Your task to perform on an android device: Empty the shopping cart on bestbuy. Image 0: 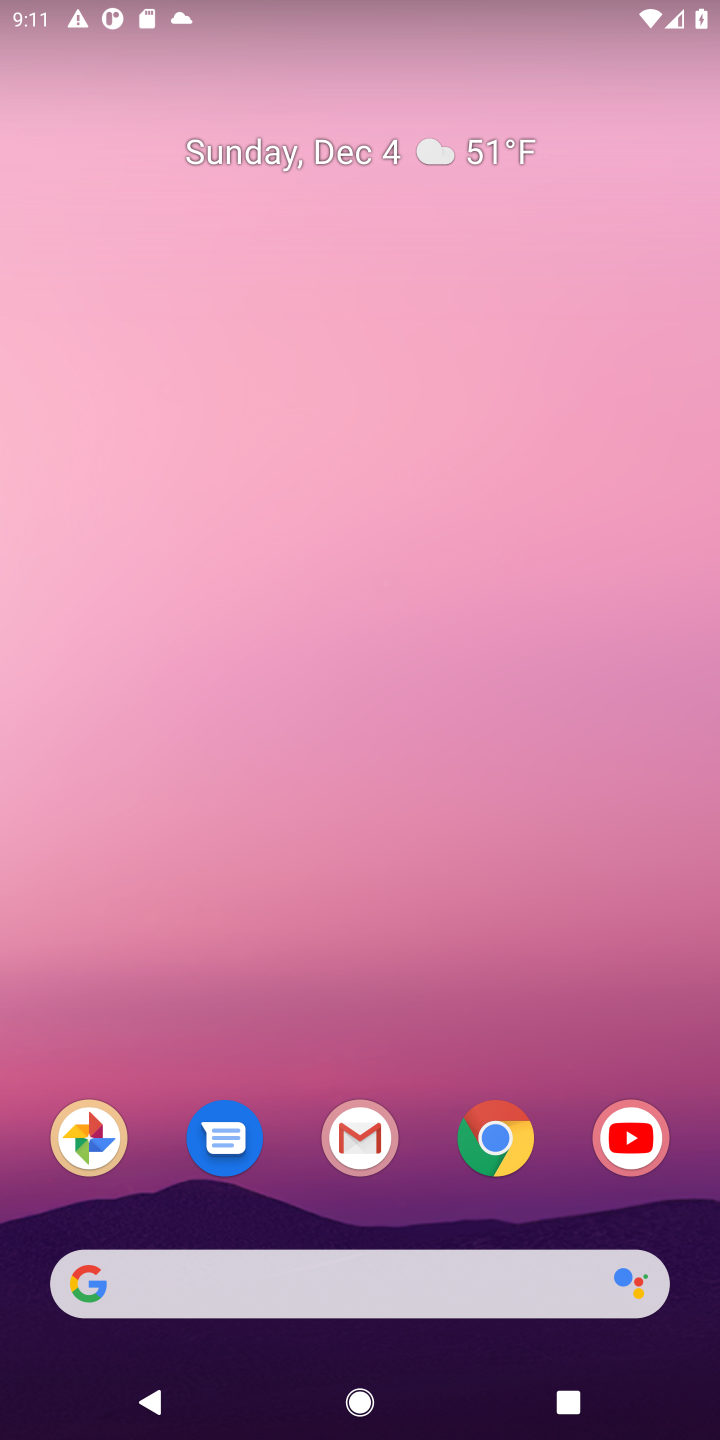
Step 0: click (484, 1136)
Your task to perform on an android device: Empty the shopping cart on bestbuy. Image 1: 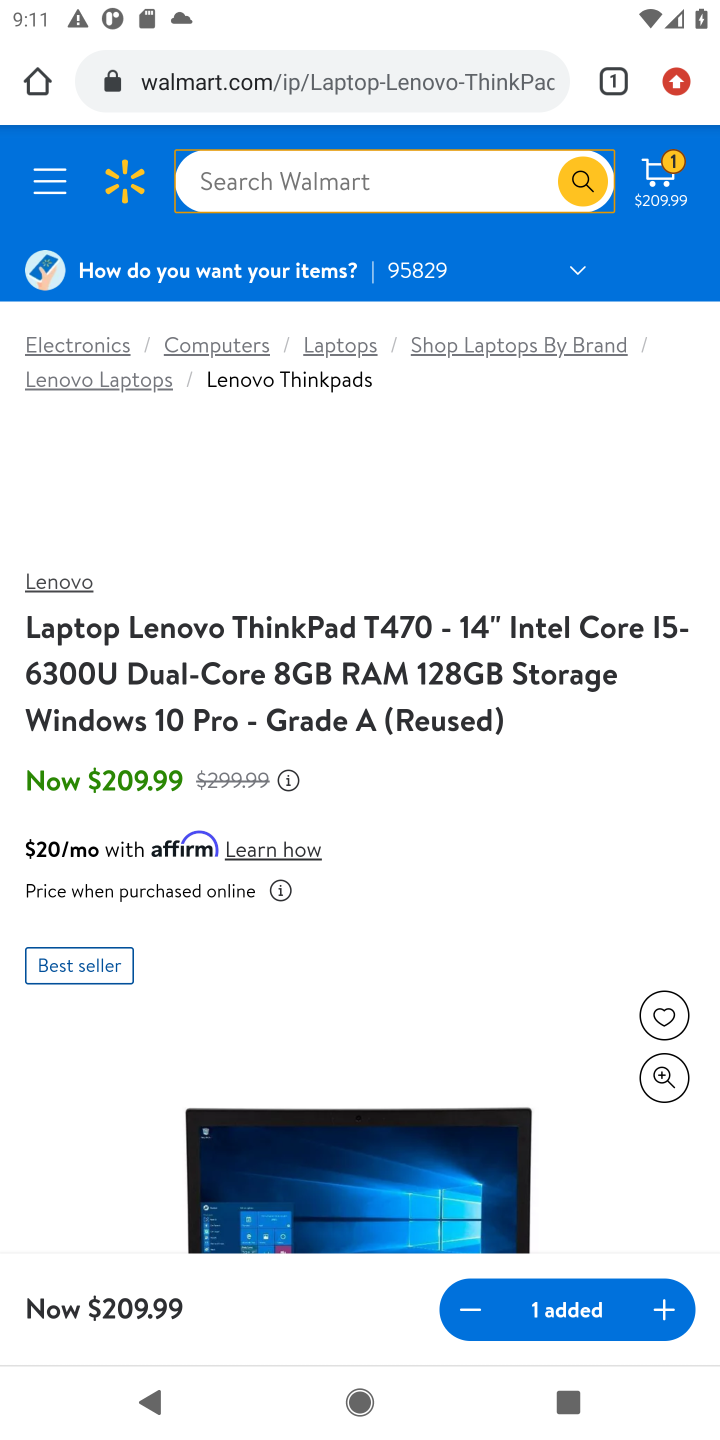
Step 1: click (347, 84)
Your task to perform on an android device: Empty the shopping cart on bestbuy. Image 2: 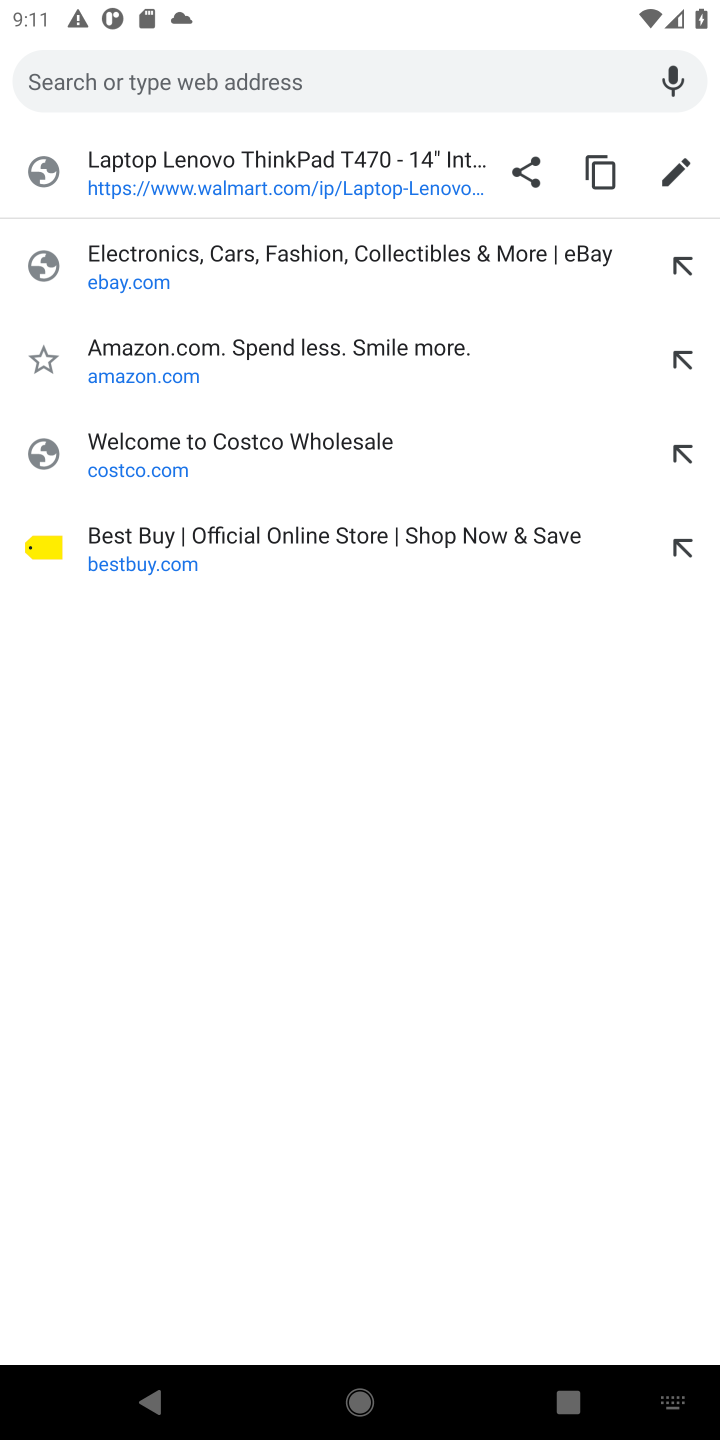
Step 2: click (244, 533)
Your task to perform on an android device: Empty the shopping cart on bestbuy. Image 3: 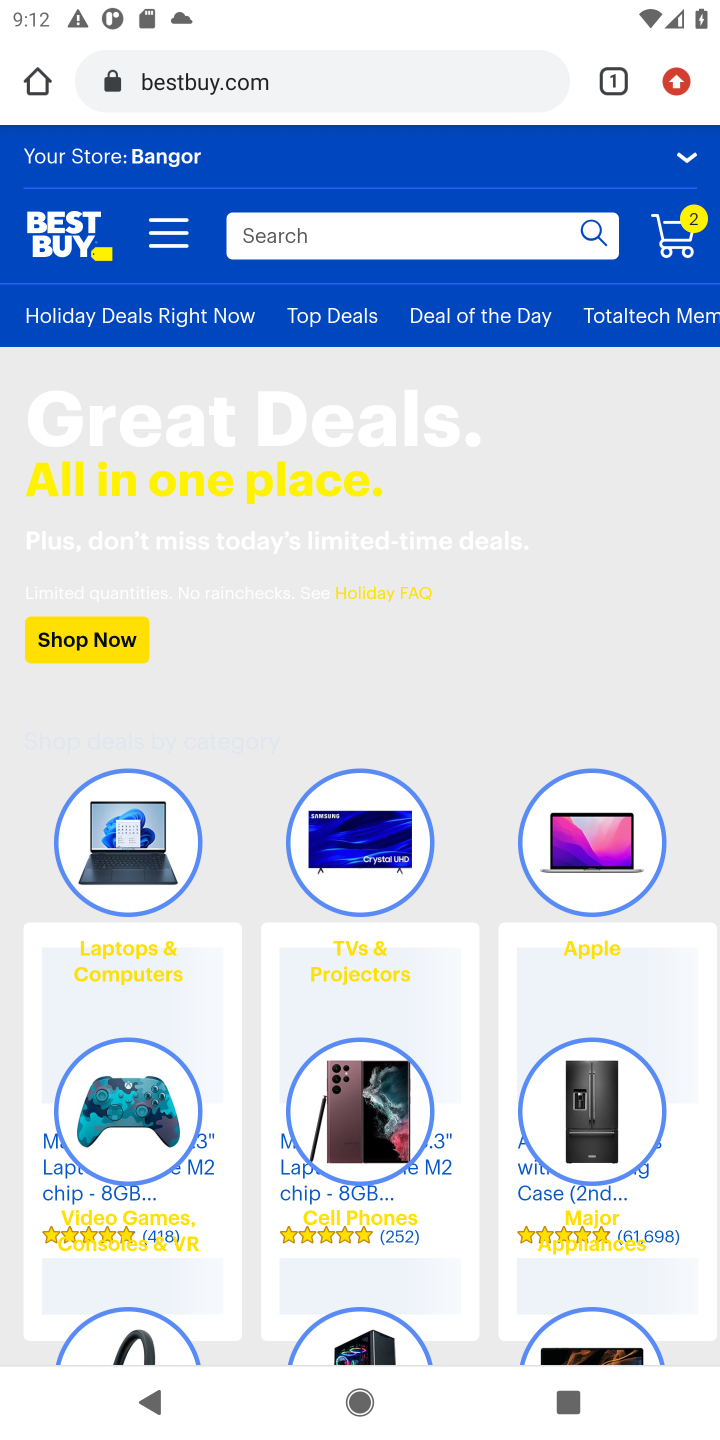
Step 3: click (673, 228)
Your task to perform on an android device: Empty the shopping cart on bestbuy. Image 4: 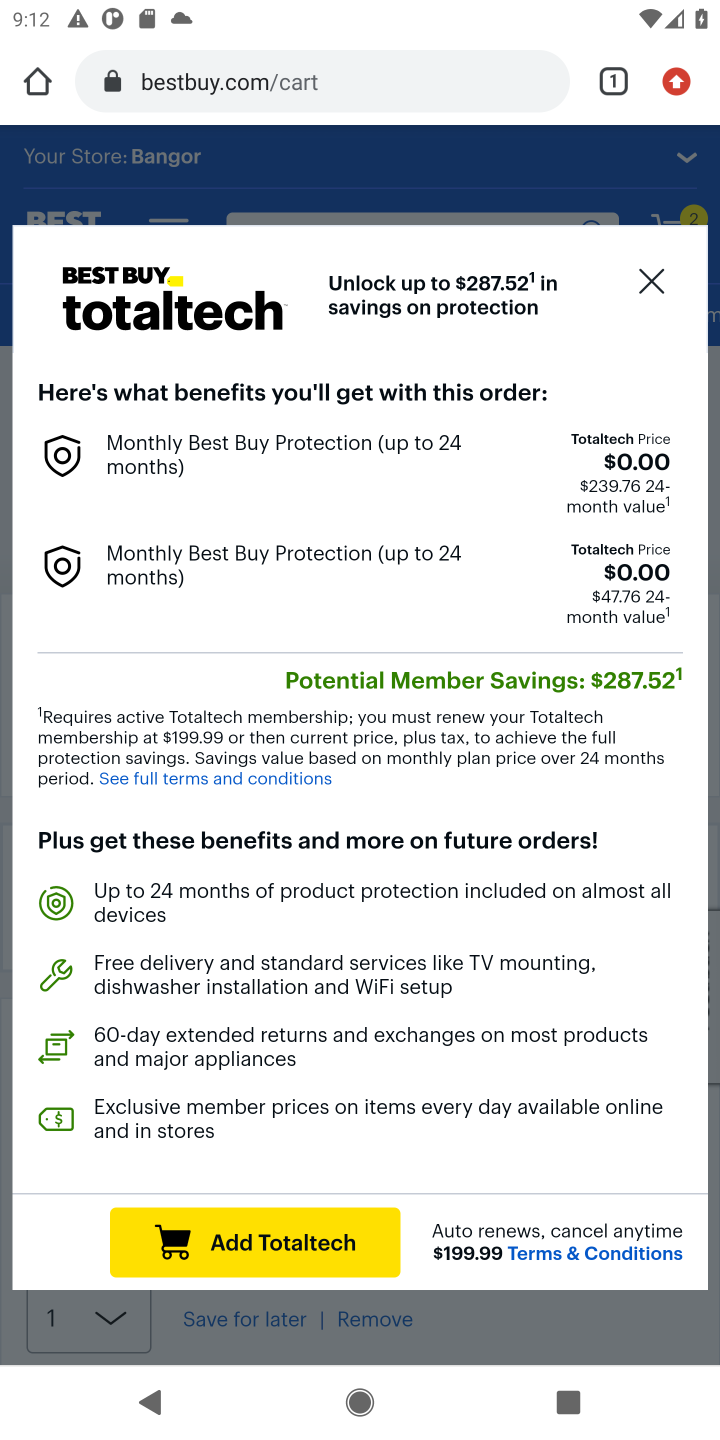
Step 4: click (649, 278)
Your task to perform on an android device: Empty the shopping cart on bestbuy. Image 5: 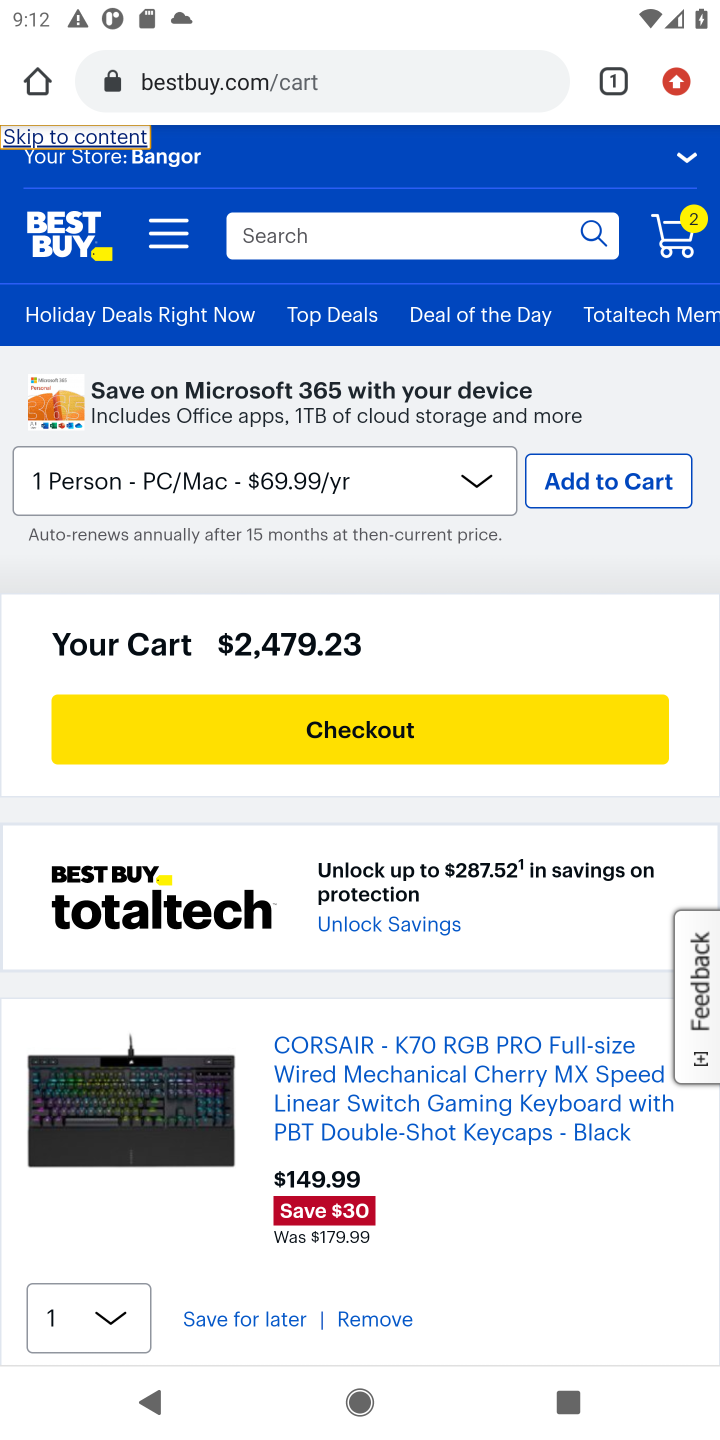
Step 5: drag from (501, 964) to (525, 441)
Your task to perform on an android device: Empty the shopping cart on bestbuy. Image 6: 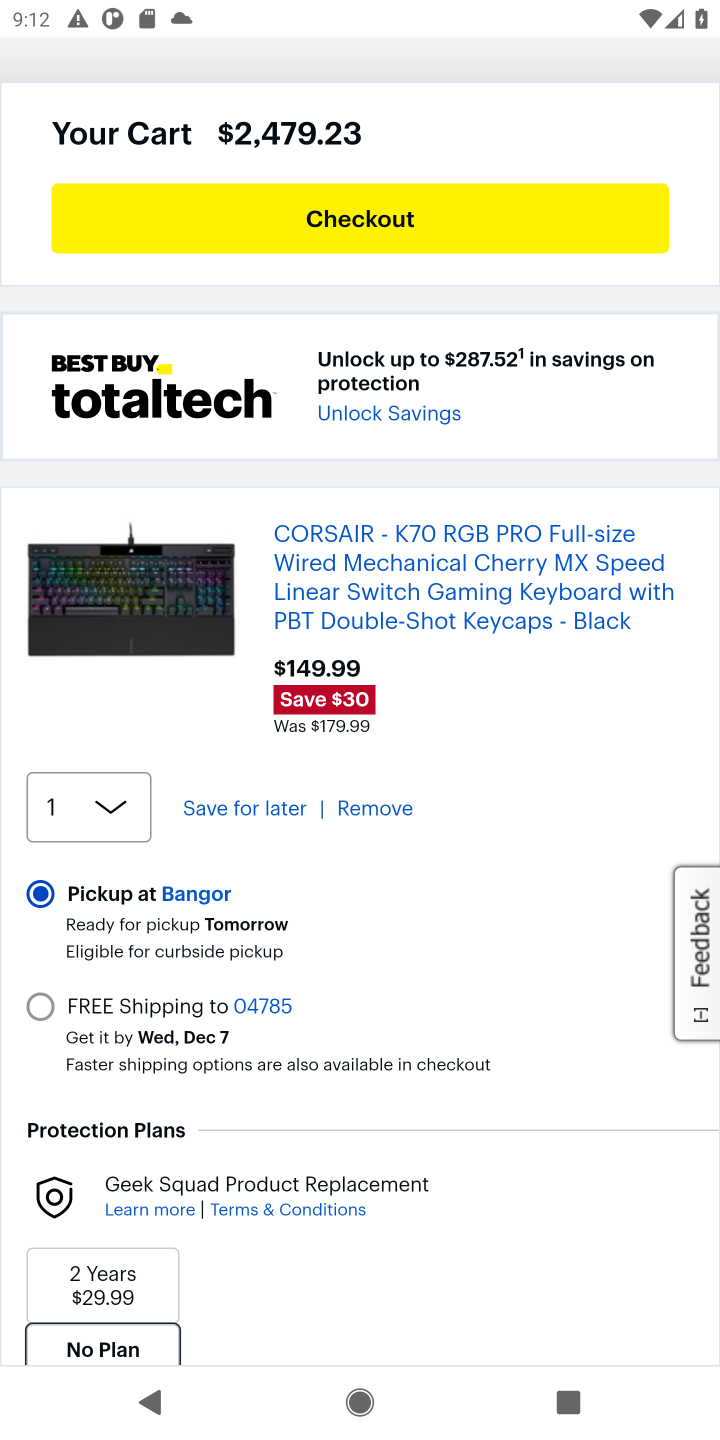
Step 6: click (371, 810)
Your task to perform on an android device: Empty the shopping cart on bestbuy. Image 7: 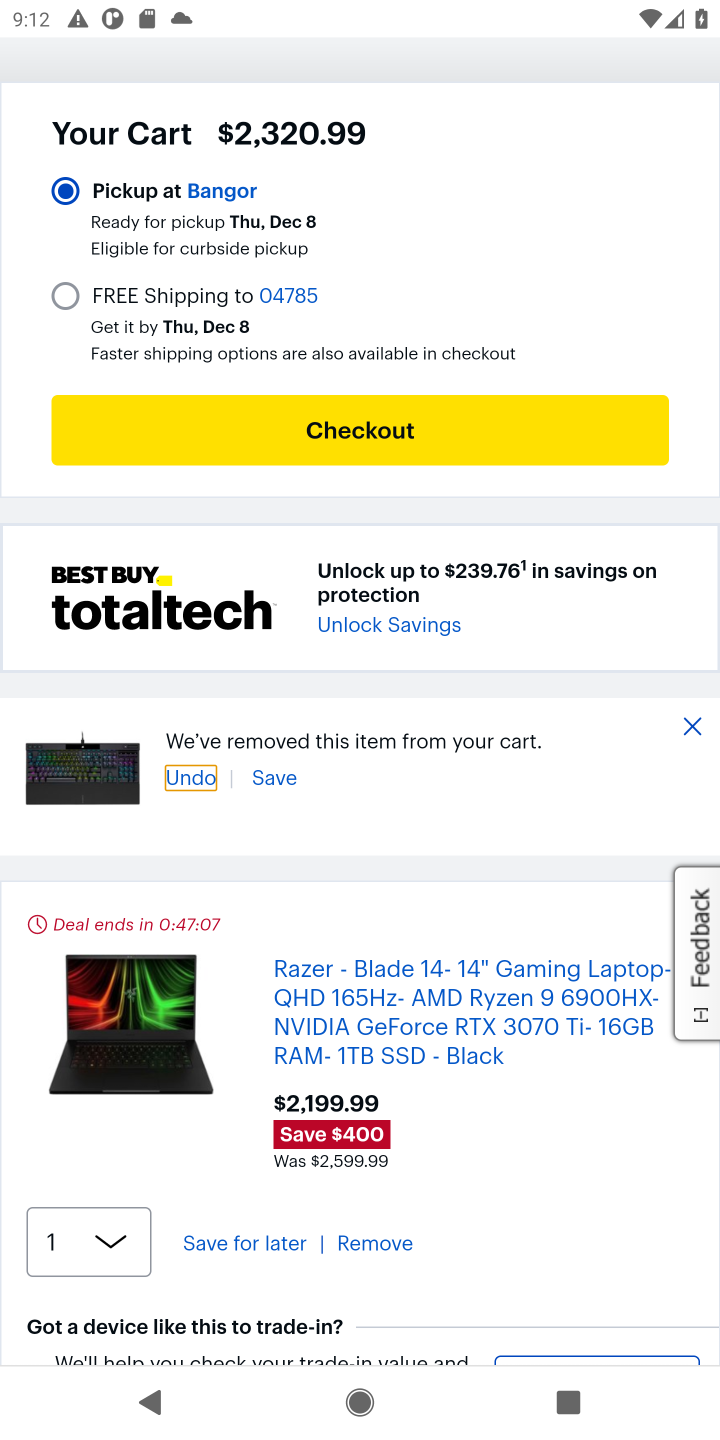
Step 7: click (696, 720)
Your task to perform on an android device: Empty the shopping cart on bestbuy. Image 8: 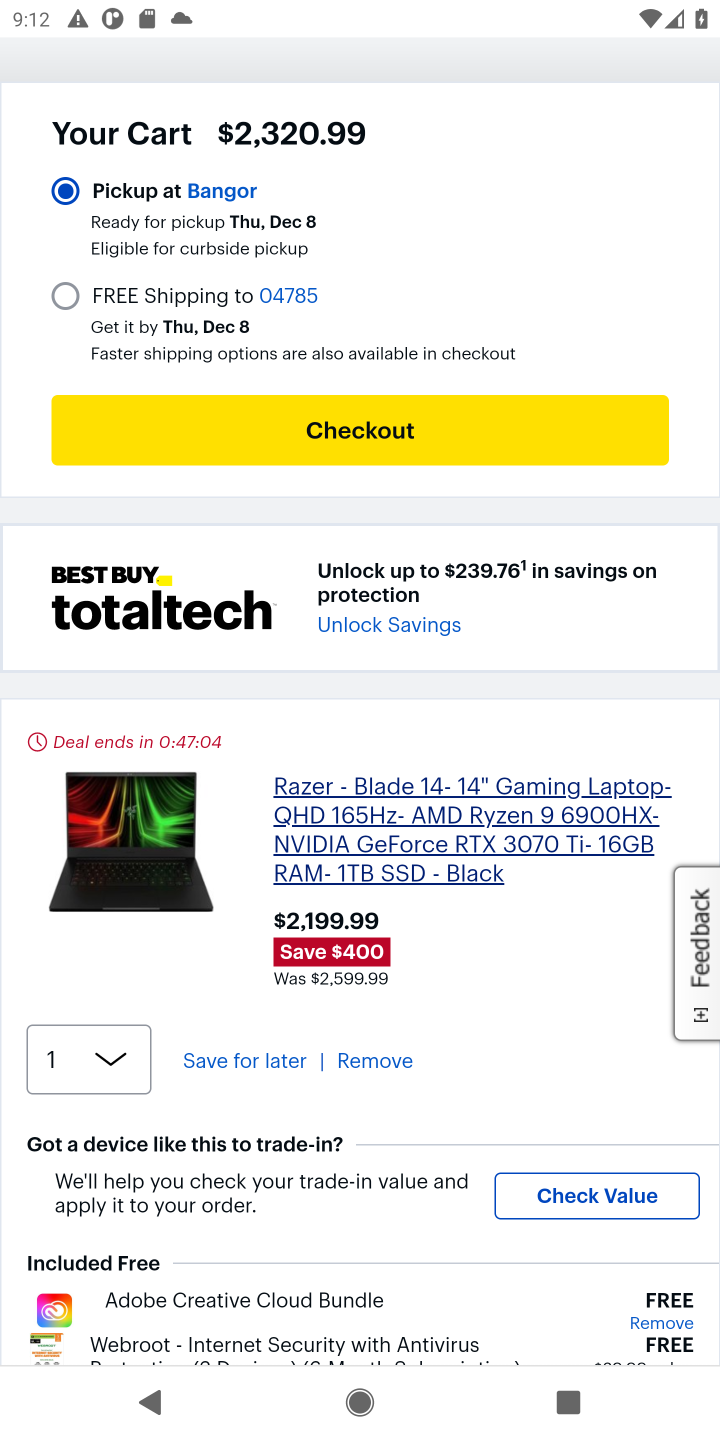
Step 8: click (378, 1065)
Your task to perform on an android device: Empty the shopping cart on bestbuy. Image 9: 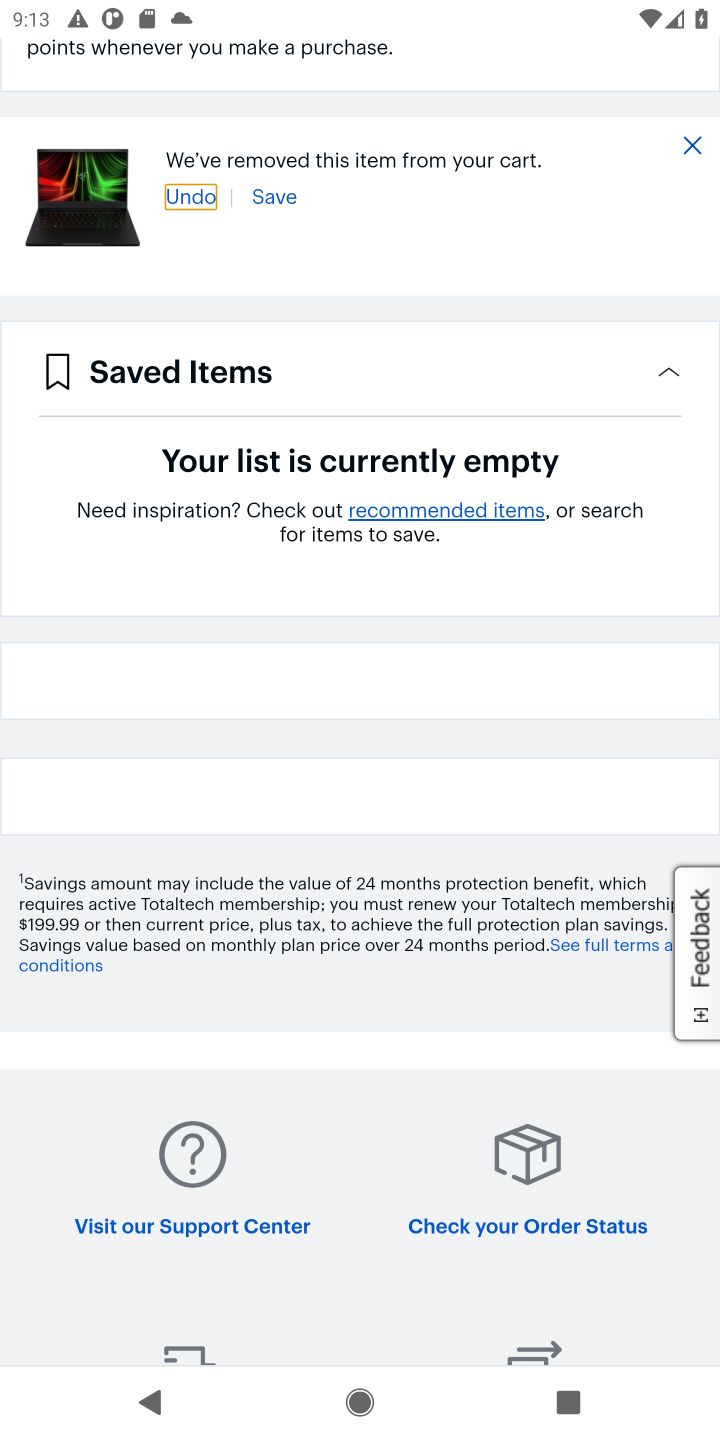
Step 9: click (689, 131)
Your task to perform on an android device: Empty the shopping cart on bestbuy. Image 10: 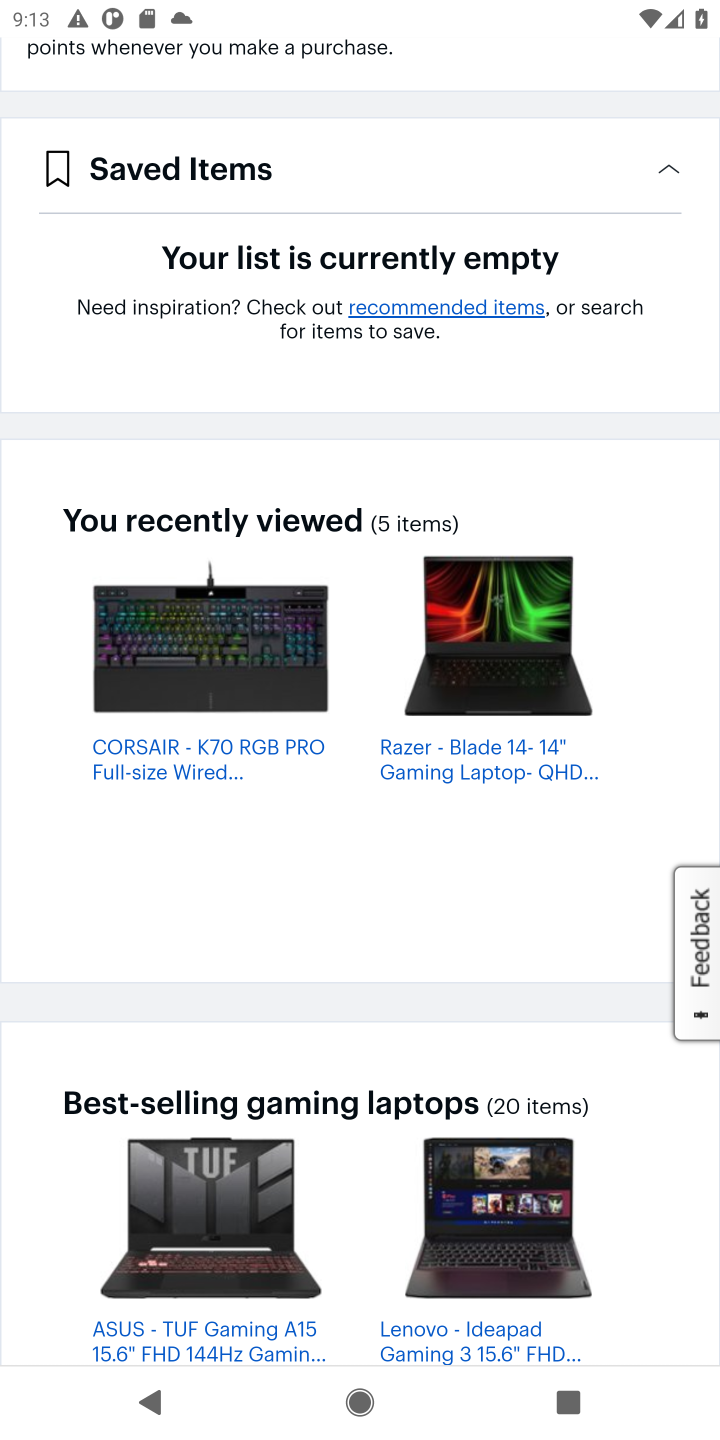
Step 10: task complete